Your task to perform on an android device: turn on bluetooth scan Image 0: 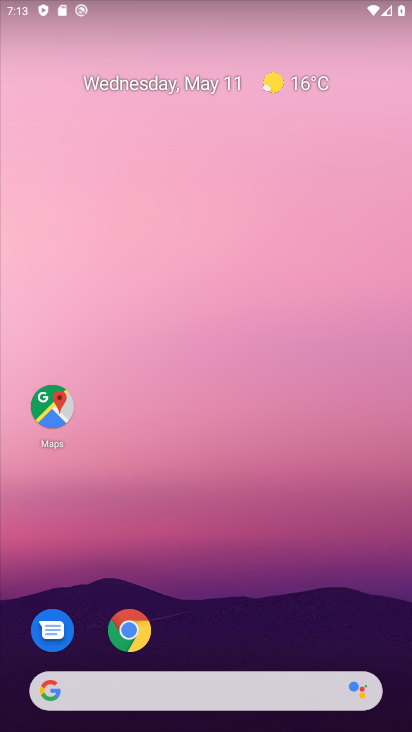
Step 0: drag from (353, 580) to (388, 41)
Your task to perform on an android device: turn on bluetooth scan Image 1: 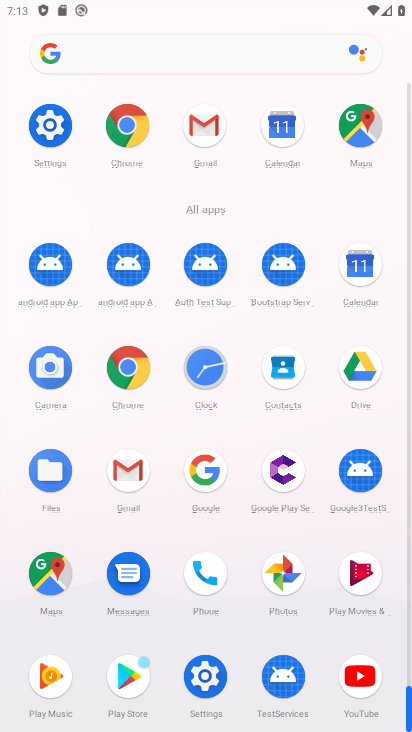
Step 1: click (60, 114)
Your task to perform on an android device: turn on bluetooth scan Image 2: 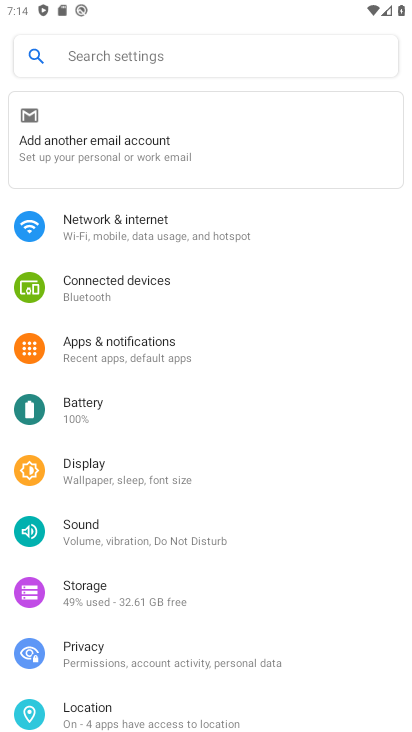
Step 2: drag from (129, 669) to (167, 257)
Your task to perform on an android device: turn on bluetooth scan Image 3: 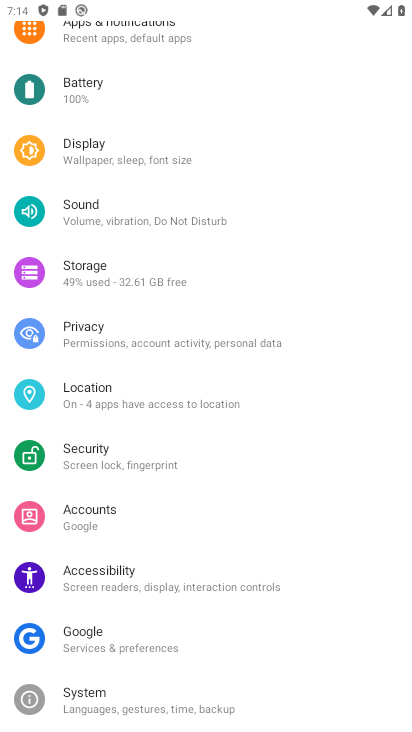
Step 3: click (141, 404)
Your task to perform on an android device: turn on bluetooth scan Image 4: 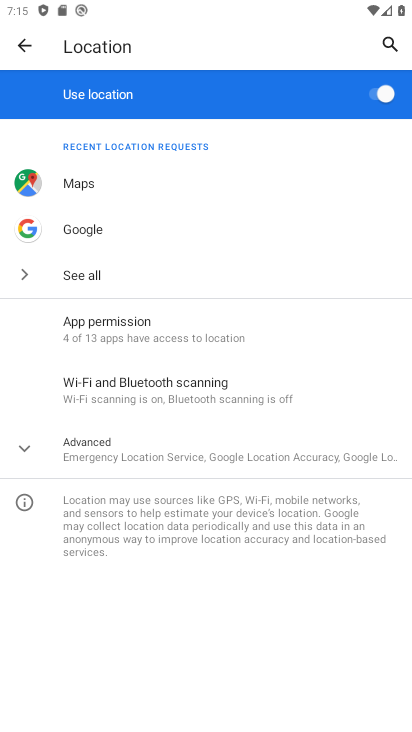
Step 4: click (136, 403)
Your task to perform on an android device: turn on bluetooth scan Image 5: 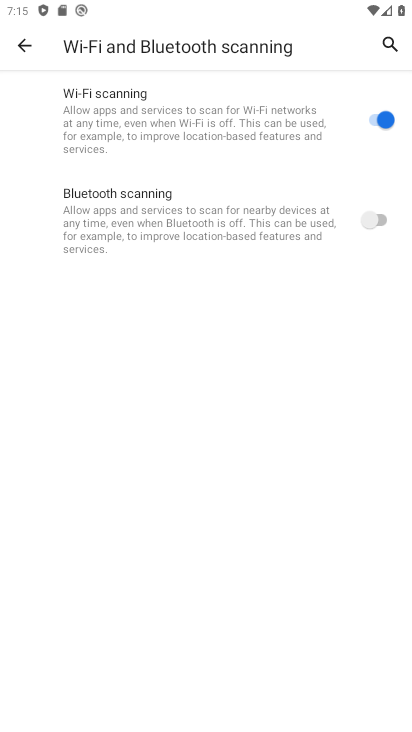
Step 5: click (376, 223)
Your task to perform on an android device: turn on bluetooth scan Image 6: 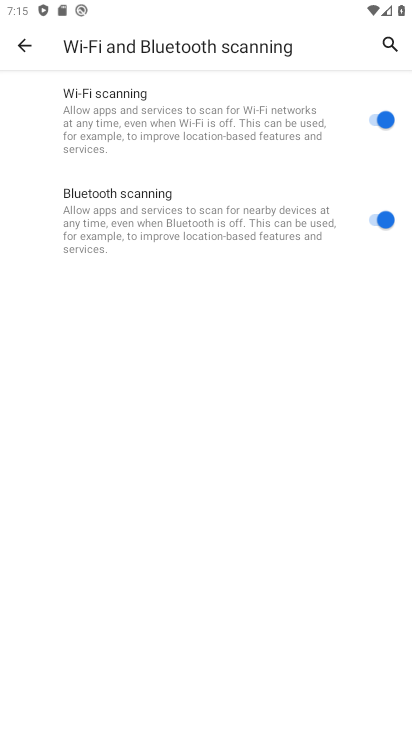
Step 6: task complete